Your task to perform on an android device: View the shopping cart on amazon. Add "dell xps" to the cart on amazon Image 0: 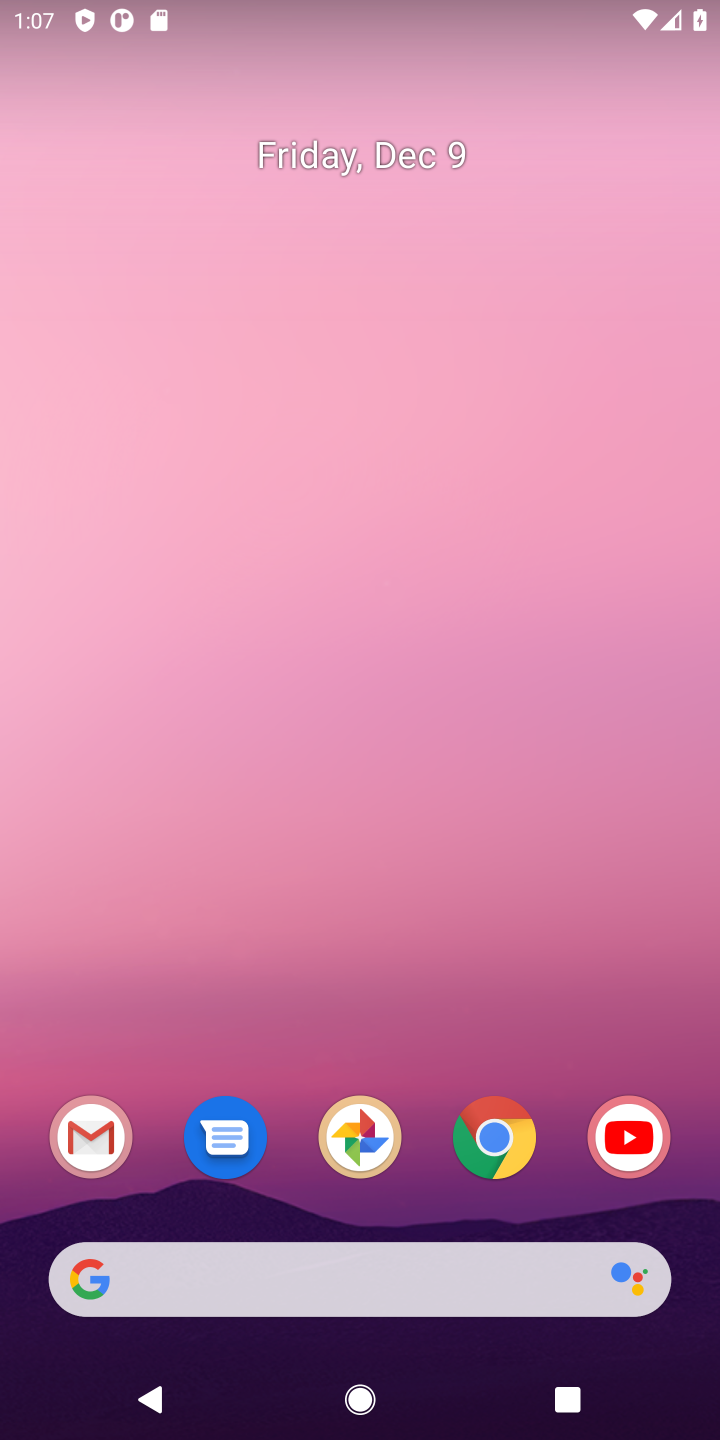
Step 0: click (504, 1124)
Your task to perform on an android device: View the shopping cart on amazon. Add "dell xps" to the cart on amazon Image 1: 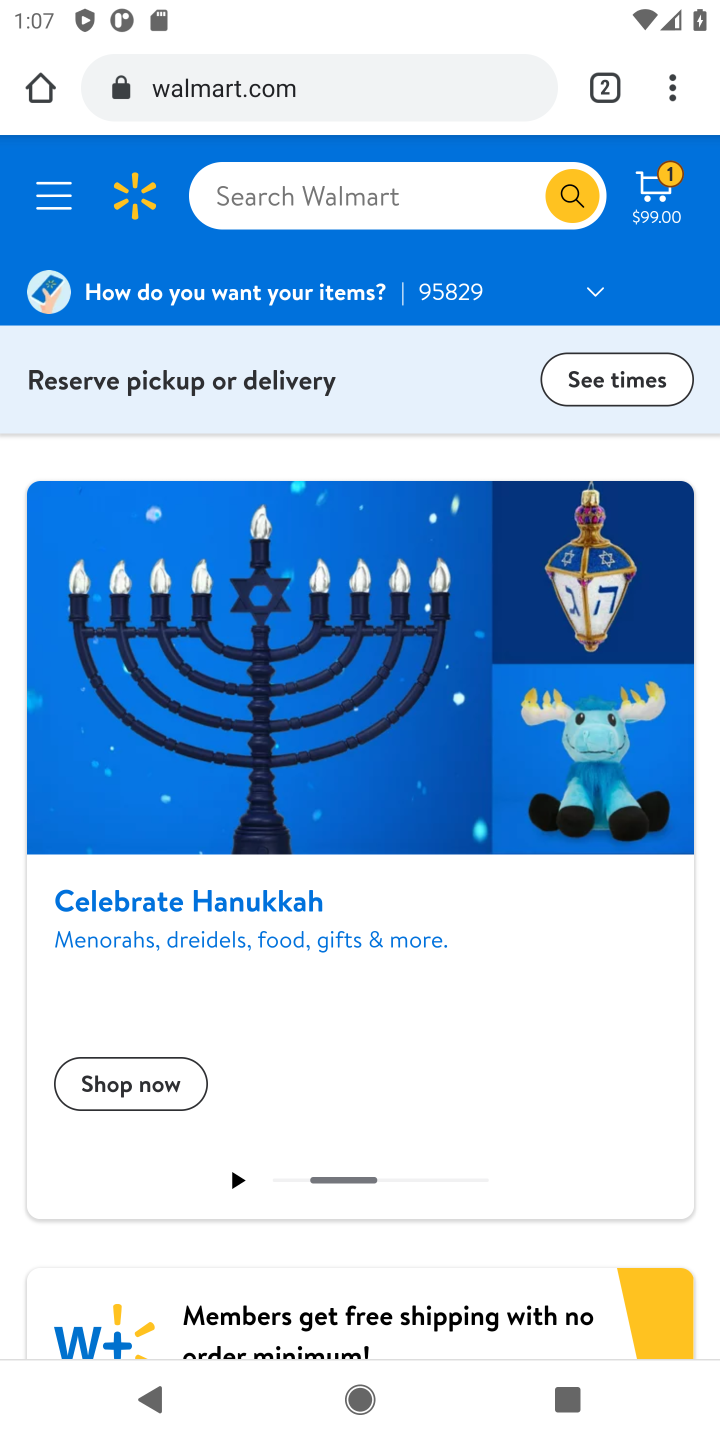
Step 1: click (657, 185)
Your task to perform on an android device: View the shopping cart on amazon. Add "dell xps" to the cart on amazon Image 2: 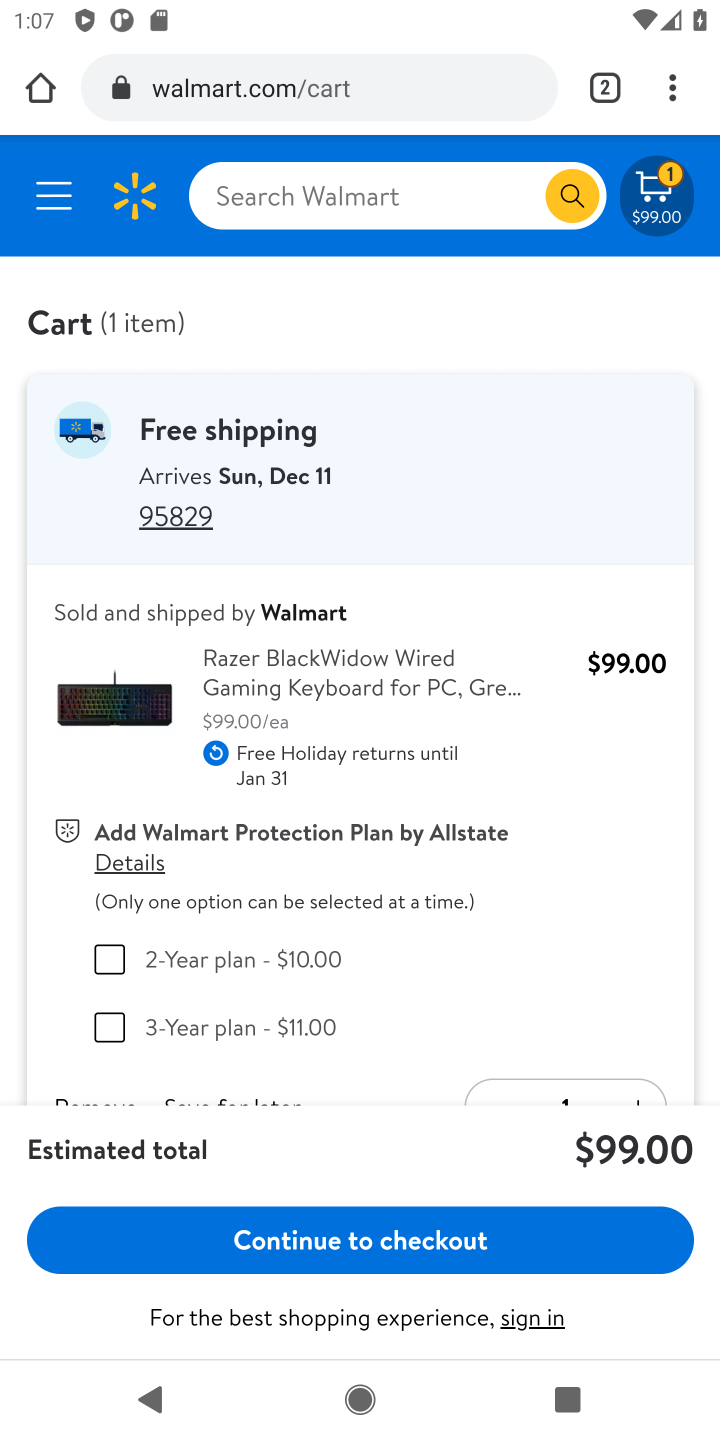
Step 2: drag from (508, 829) to (495, 226)
Your task to perform on an android device: View the shopping cart on amazon. Add "dell xps" to the cart on amazon Image 3: 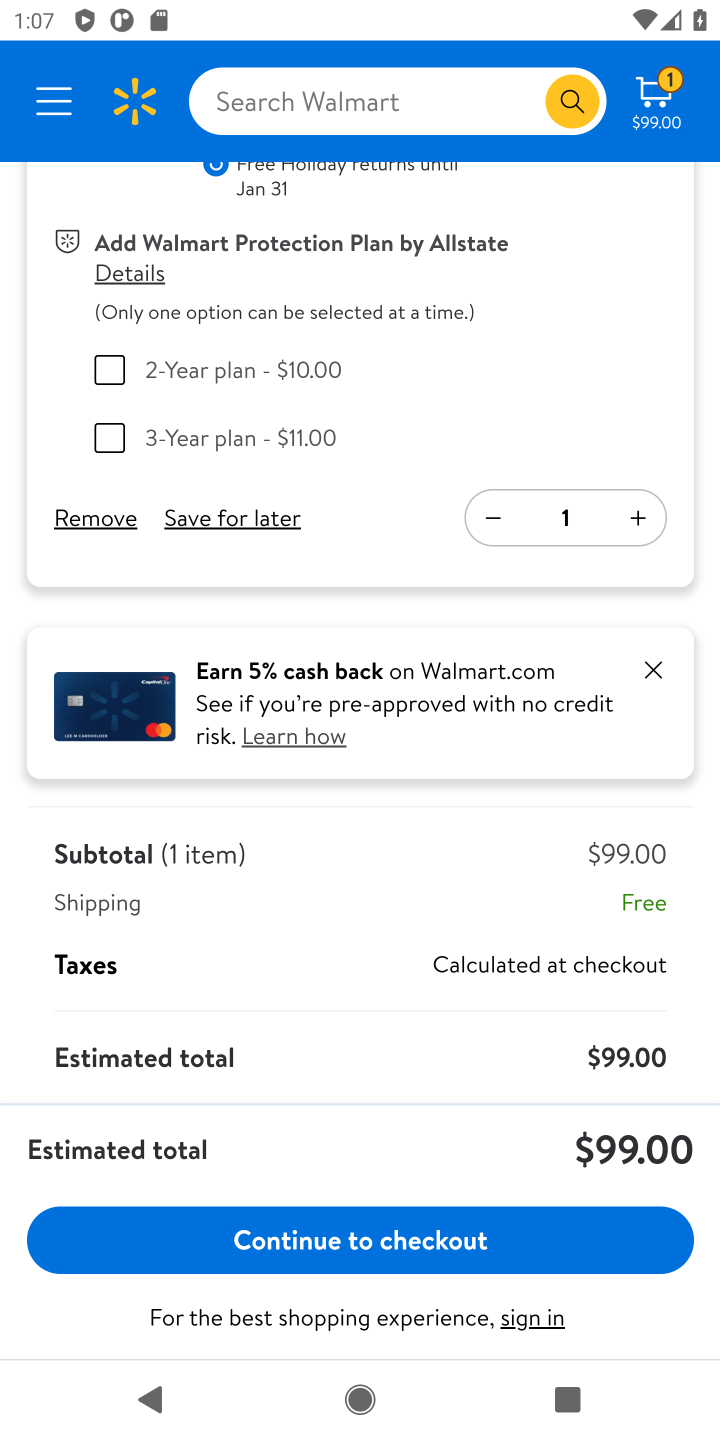
Step 3: click (86, 517)
Your task to perform on an android device: View the shopping cart on amazon. Add "dell xps" to the cart on amazon Image 4: 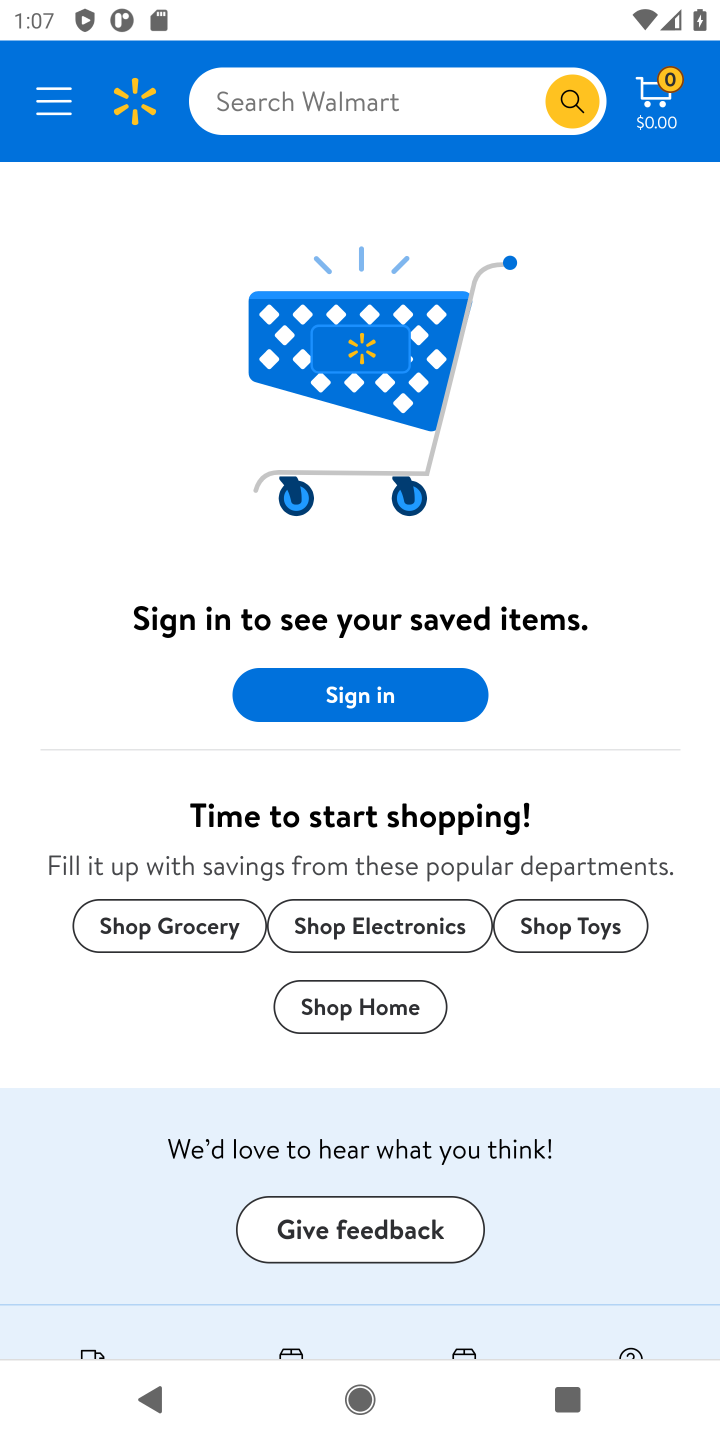
Step 4: click (418, 114)
Your task to perform on an android device: View the shopping cart on amazon. Add "dell xps" to the cart on amazon Image 5: 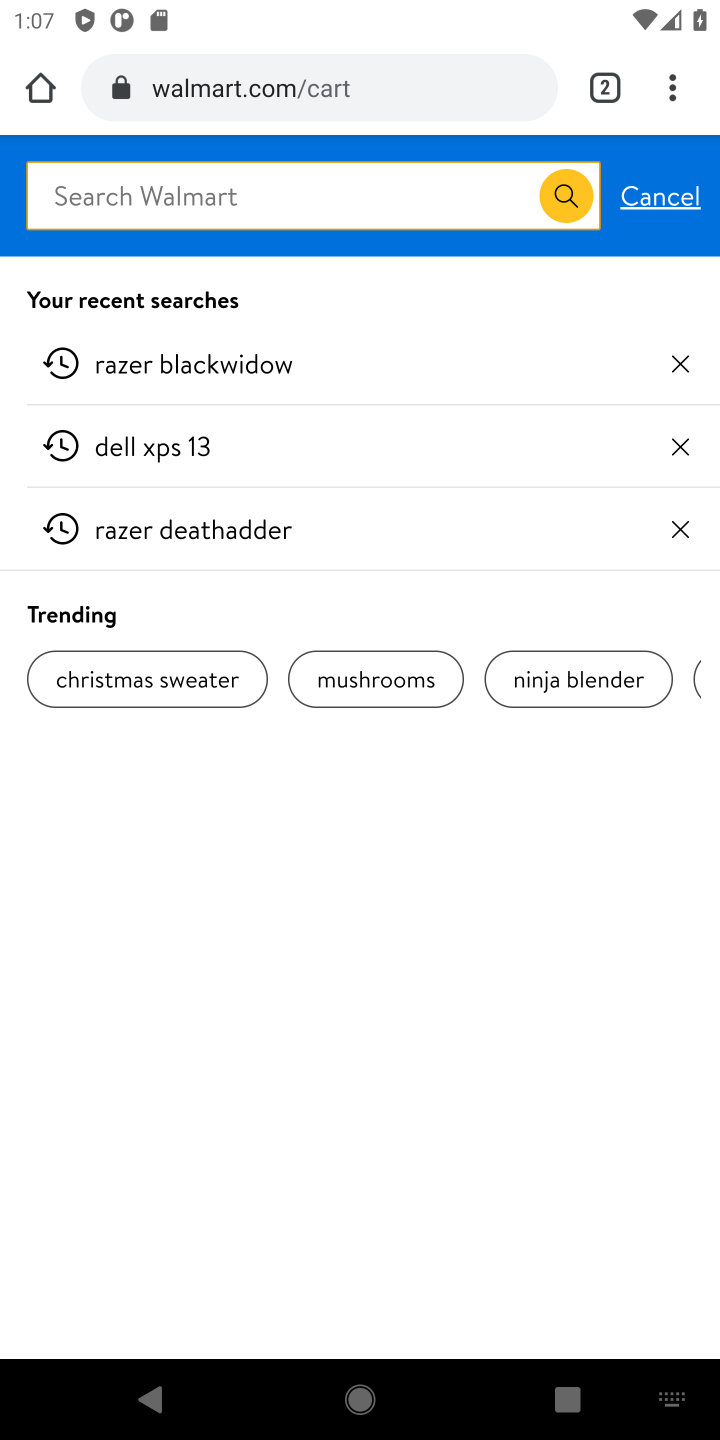
Step 5: type "DELL XPS"
Your task to perform on an android device: View the shopping cart on amazon. Add "dell xps" to the cart on amazon Image 6: 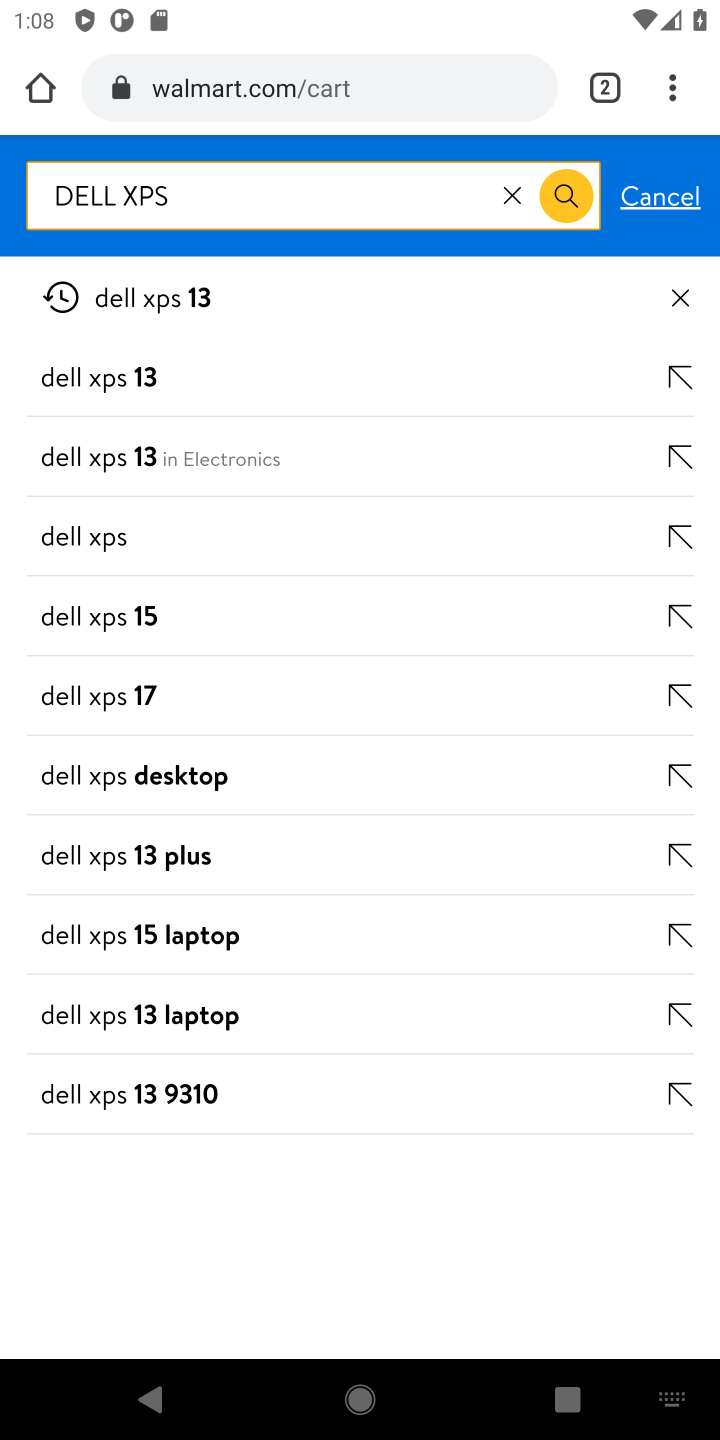
Step 6: click (176, 298)
Your task to perform on an android device: View the shopping cart on amazon. Add "dell xps" to the cart on amazon Image 7: 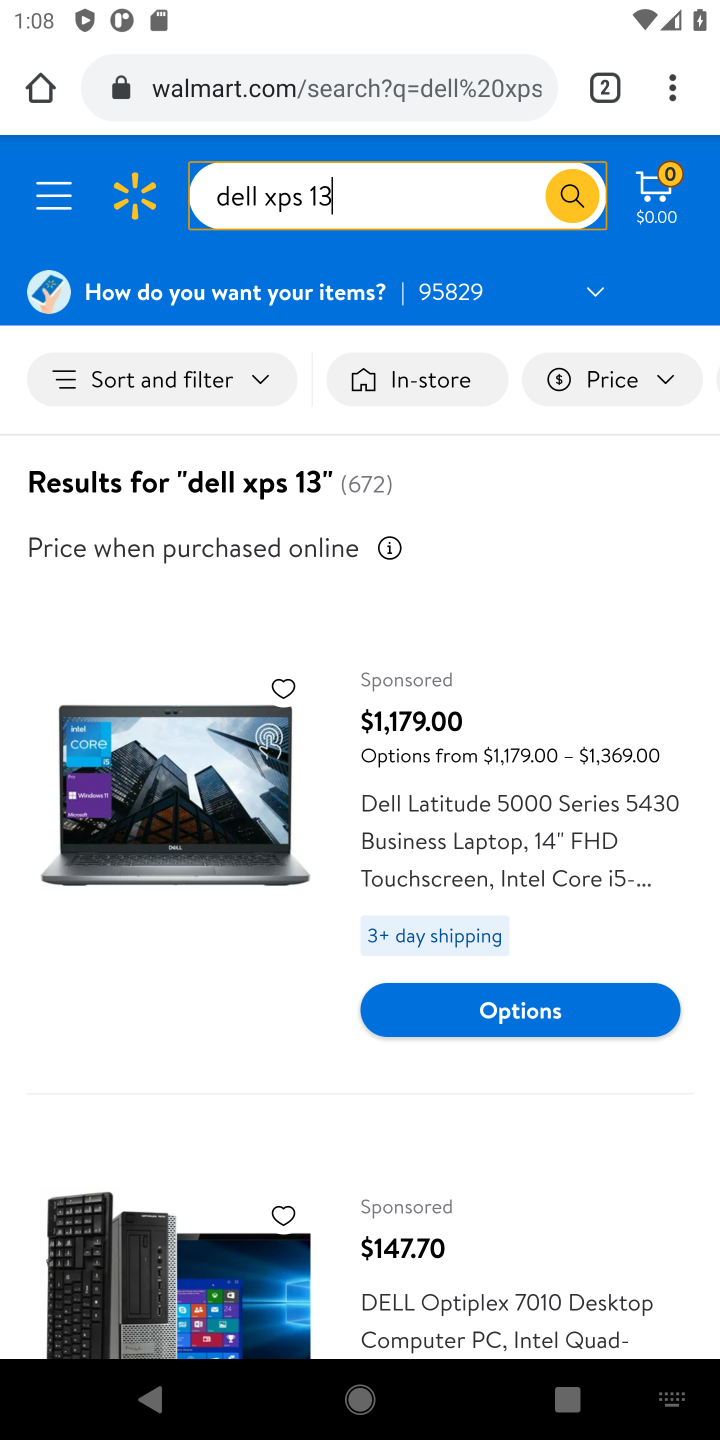
Step 7: click (325, 795)
Your task to perform on an android device: View the shopping cart on amazon. Add "dell xps" to the cart on amazon Image 8: 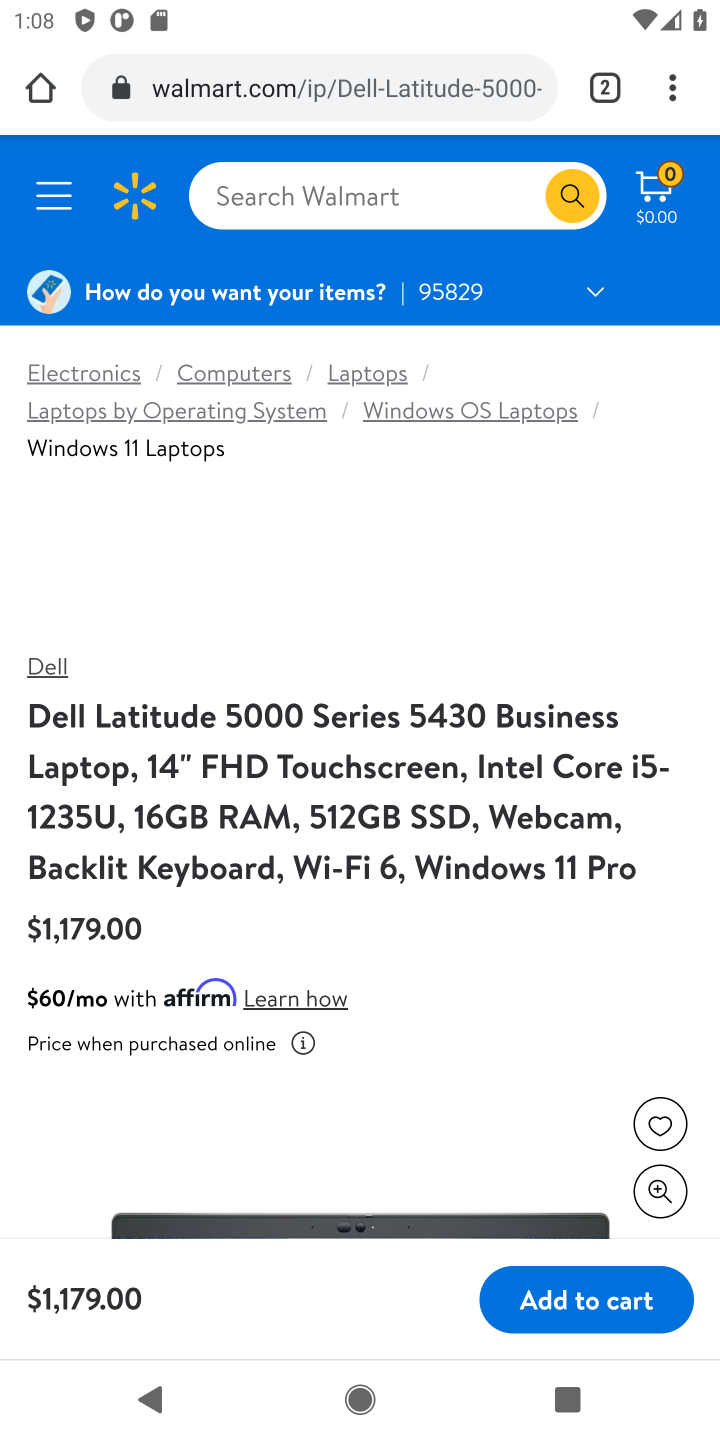
Step 8: drag from (504, 974) to (523, 250)
Your task to perform on an android device: View the shopping cart on amazon. Add "dell xps" to the cart on amazon Image 9: 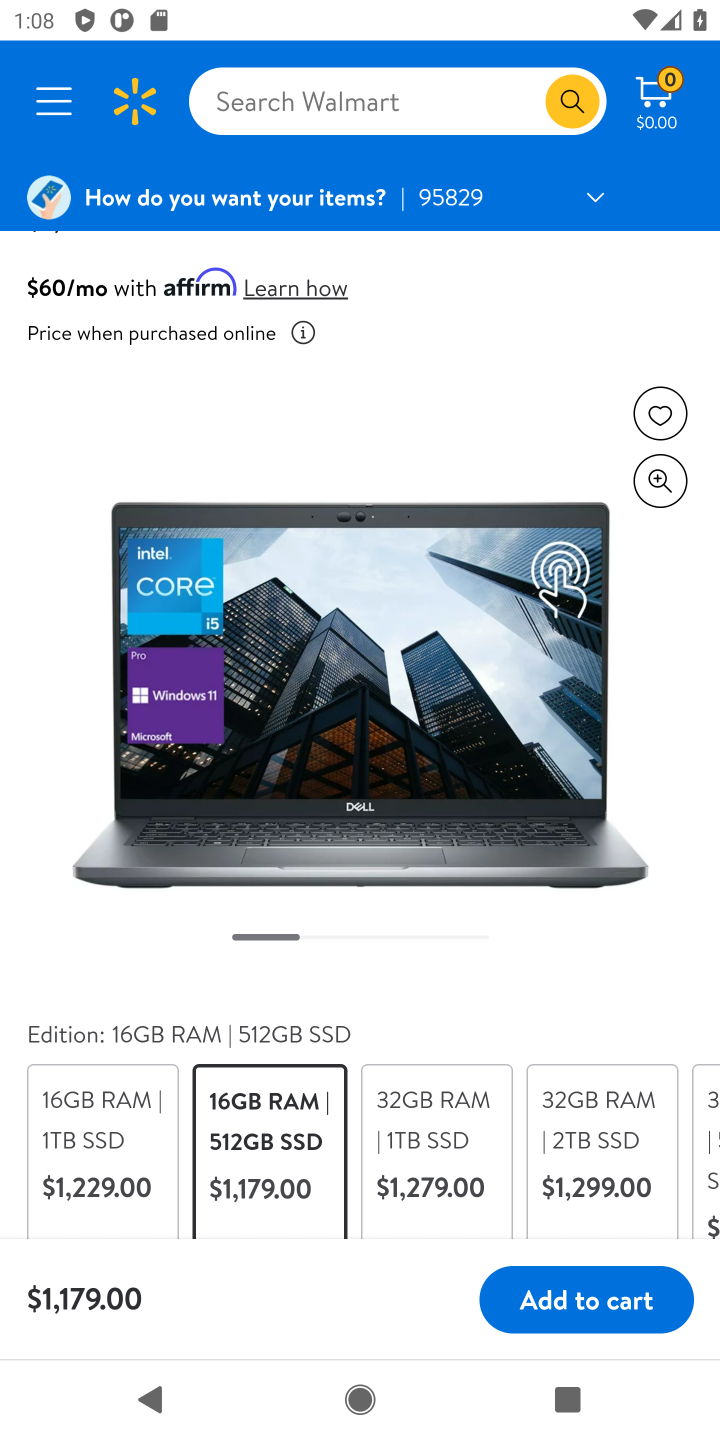
Step 9: click (583, 1311)
Your task to perform on an android device: View the shopping cart on amazon. Add "dell xps" to the cart on amazon Image 10: 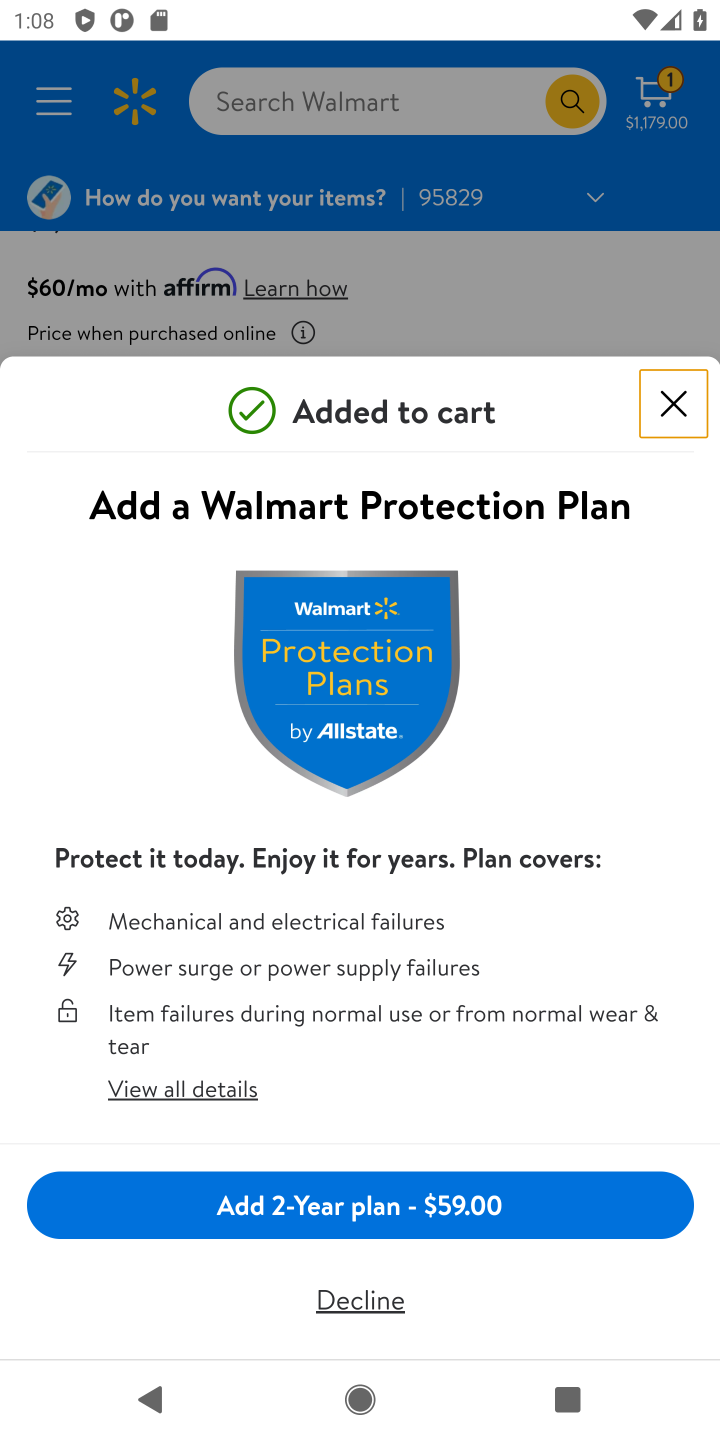
Step 10: task complete